Your task to perform on an android device: Open calendar and show me the second week of next month Image 0: 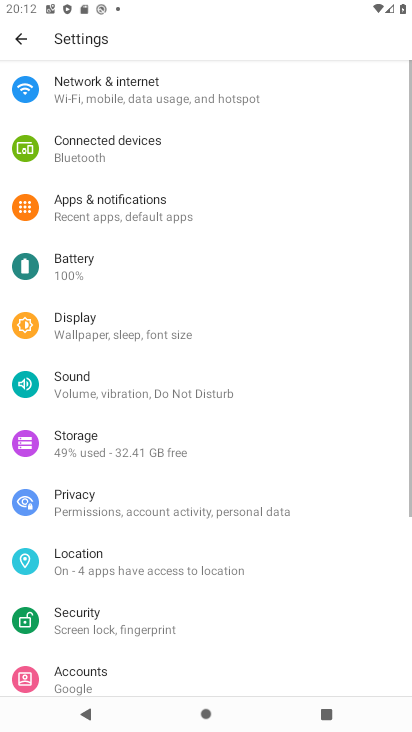
Step 0: press home button
Your task to perform on an android device: Open calendar and show me the second week of next month Image 1: 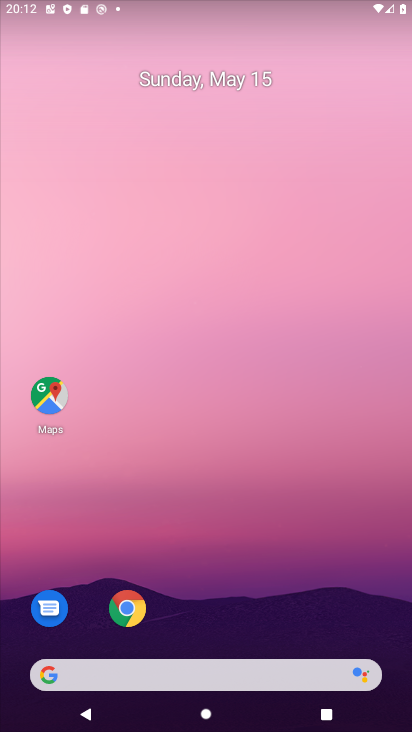
Step 1: drag from (264, 617) to (265, 25)
Your task to perform on an android device: Open calendar and show me the second week of next month Image 2: 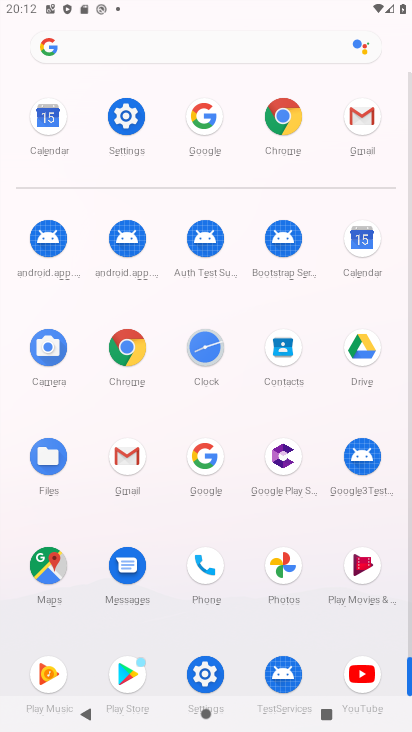
Step 2: click (363, 234)
Your task to perform on an android device: Open calendar and show me the second week of next month Image 3: 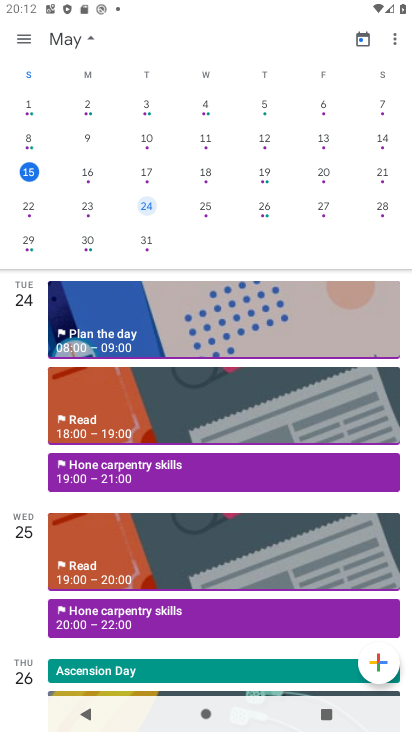
Step 3: drag from (370, 243) to (11, 221)
Your task to perform on an android device: Open calendar and show me the second week of next month Image 4: 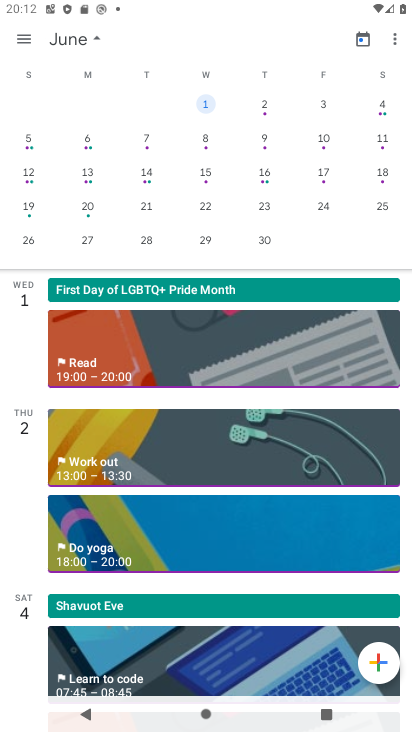
Step 4: click (322, 139)
Your task to perform on an android device: Open calendar and show me the second week of next month Image 5: 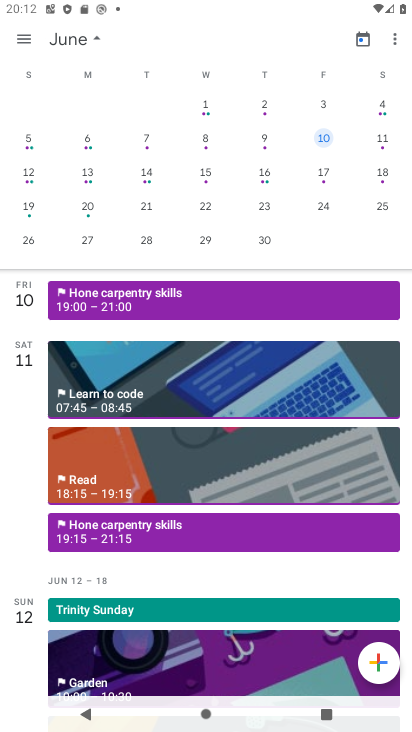
Step 5: task complete